Your task to perform on an android device: Open display settings Image 0: 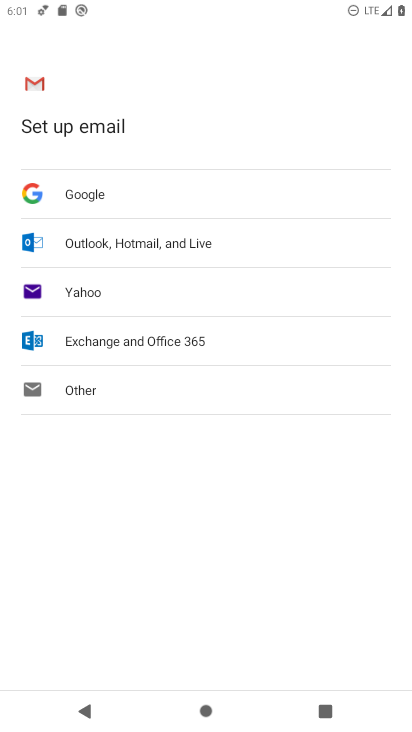
Step 0: press home button
Your task to perform on an android device: Open display settings Image 1: 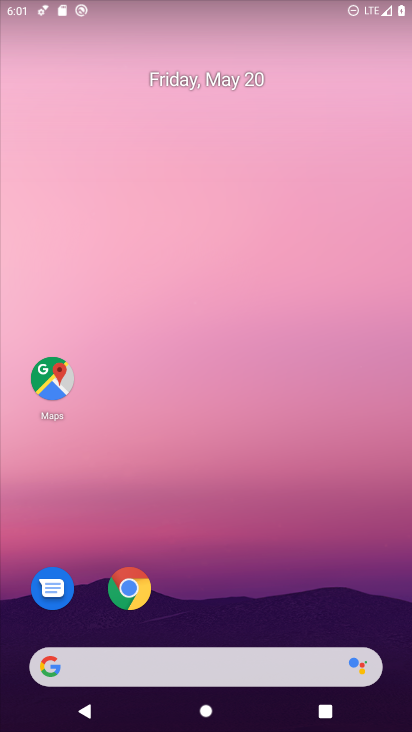
Step 1: drag from (220, 608) to (239, 133)
Your task to perform on an android device: Open display settings Image 2: 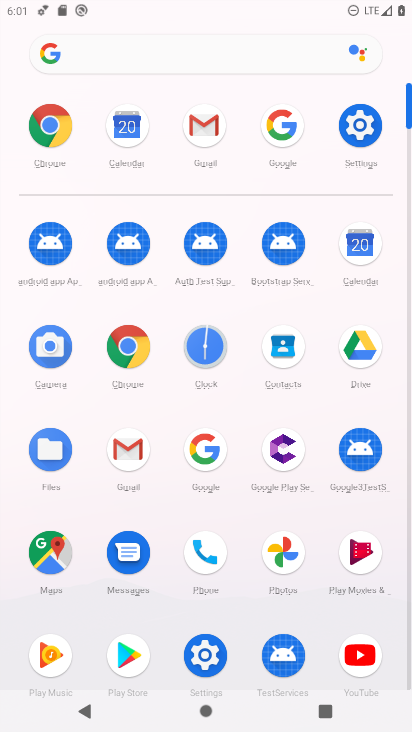
Step 2: click (354, 124)
Your task to perform on an android device: Open display settings Image 3: 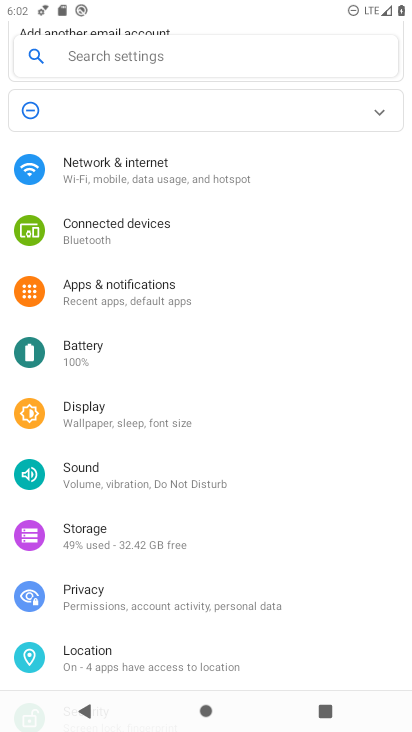
Step 3: click (92, 414)
Your task to perform on an android device: Open display settings Image 4: 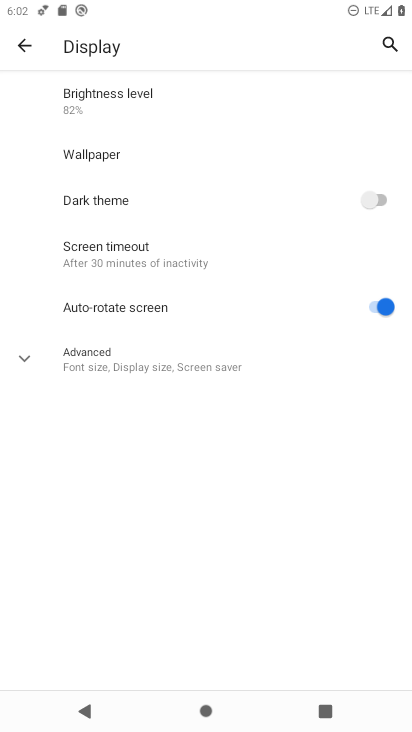
Step 4: task complete